Your task to perform on an android device: change keyboard looks Image 0: 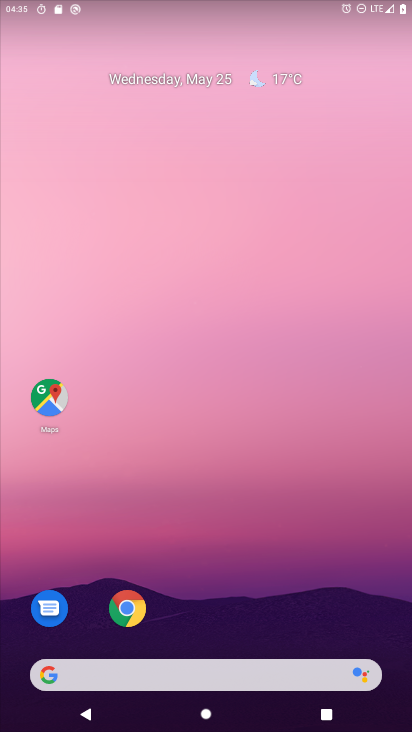
Step 0: drag from (258, 605) to (291, 208)
Your task to perform on an android device: change keyboard looks Image 1: 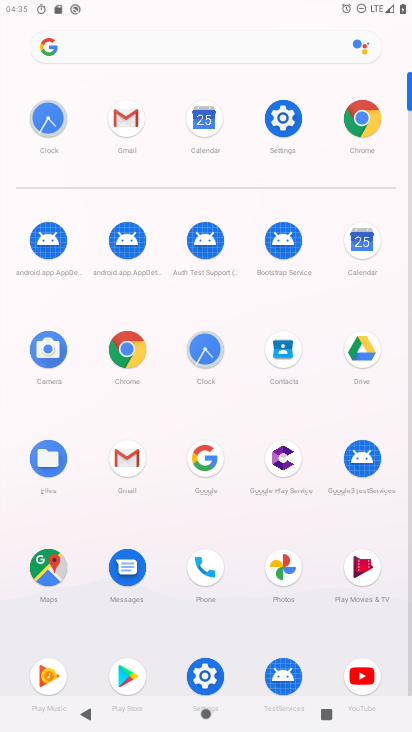
Step 1: click (287, 117)
Your task to perform on an android device: change keyboard looks Image 2: 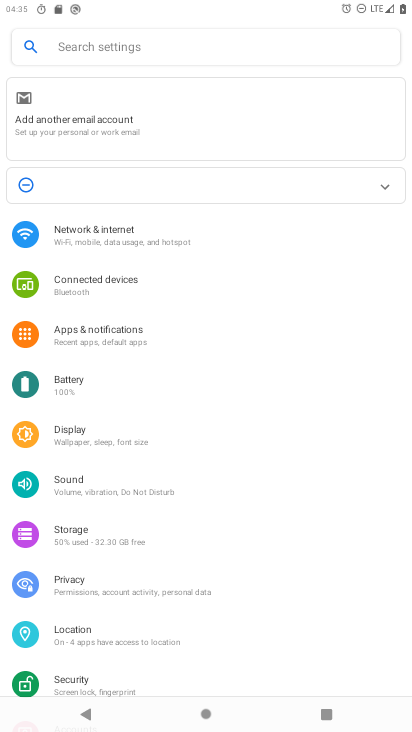
Step 2: drag from (110, 564) to (252, 103)
Your task to perform on an android device: change keyboard looks Image 3: 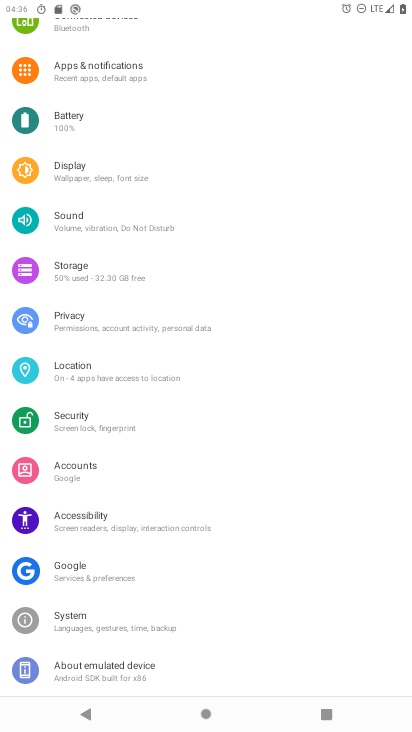
Step 3: click (130, 621)
Your task to perform on an android device: change keyboard looks Image 4: 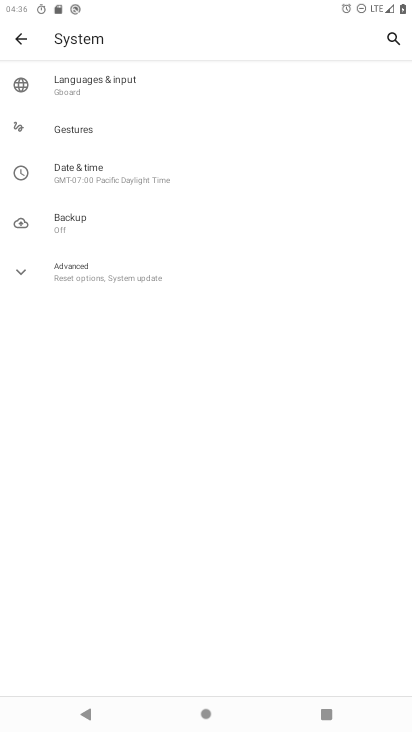
Step 4: click (87, 91)
Your task to perform on an android device: change keyboard looks Image 5: 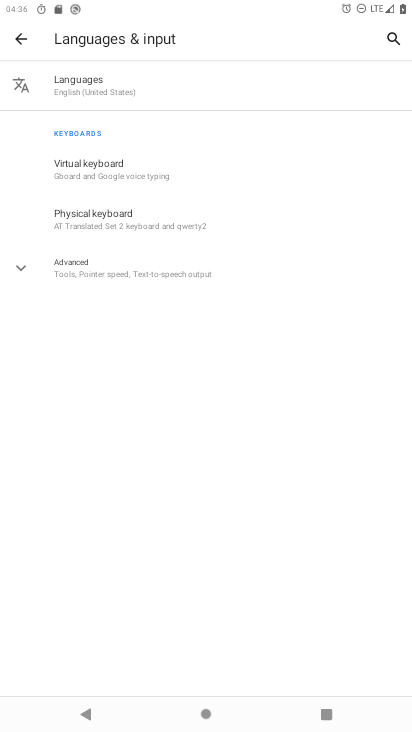
Step 5: click (105, 180)
Your task to perform on an android device: change keyboard looks Image 6: 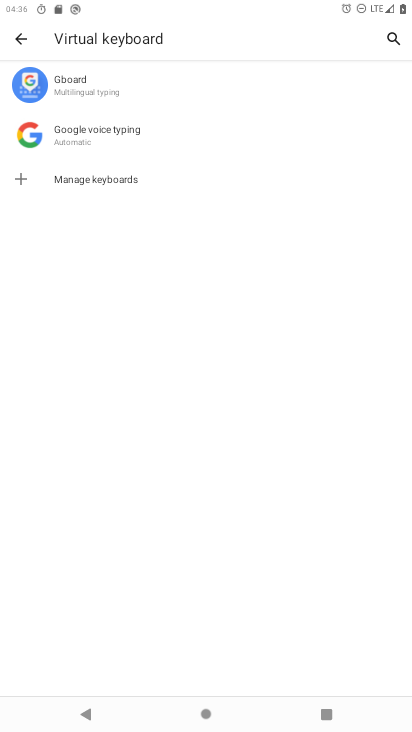
Step 6: click (107, 71)
Your task to perform on an android device: change keyboard looks Image 7: 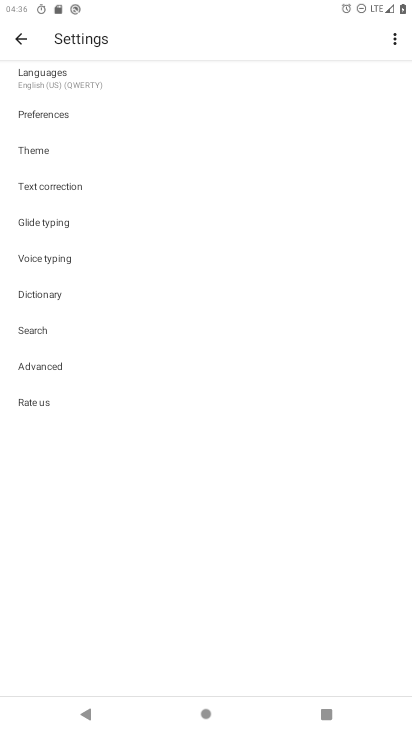
Step 7: click (52, 148)
Your task to perform on an android device: change keyboard looks Image 8: 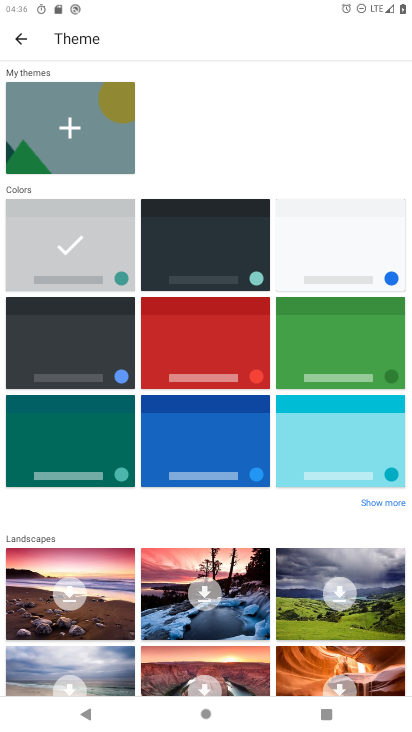
Step 8: click (332, 254)
Your task to perform on an android device: change keyboard looks Image 9: 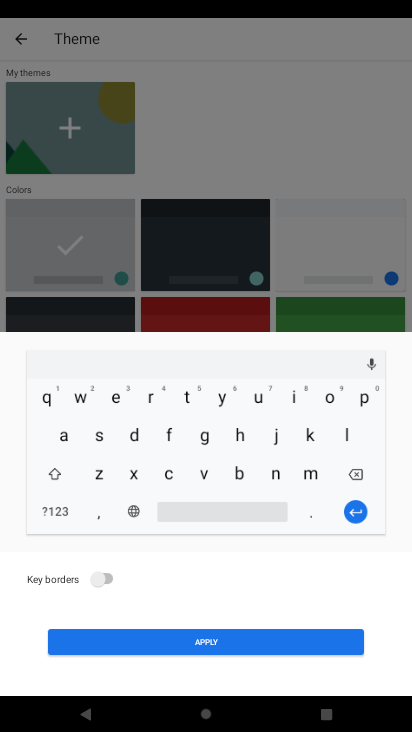
Step 9: click (171, 643)
Your task to perform on an android device: change keyboard looks Image 10: 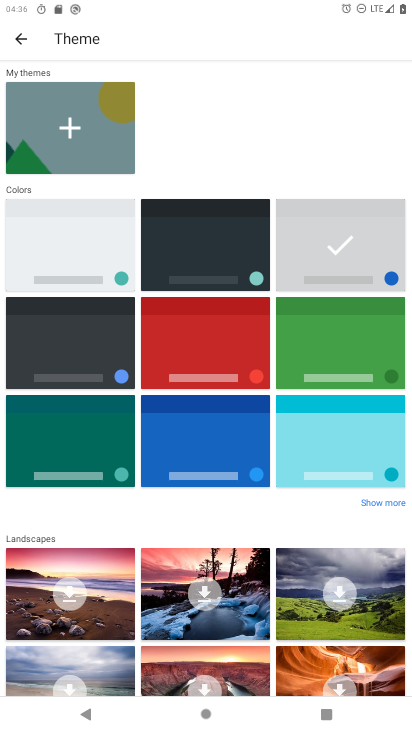
Step 10: task complete